Your task to perform on an android device: Open Google Maps Image 0: 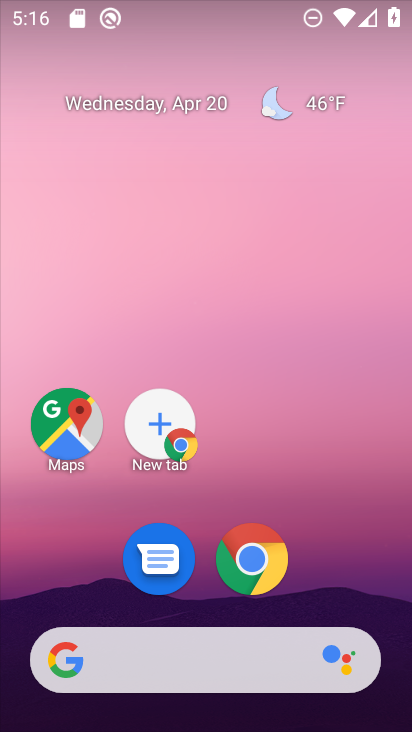
Step 0: click (76, 398)
Your task to perform on an android device: Open Google Maps Image 1: 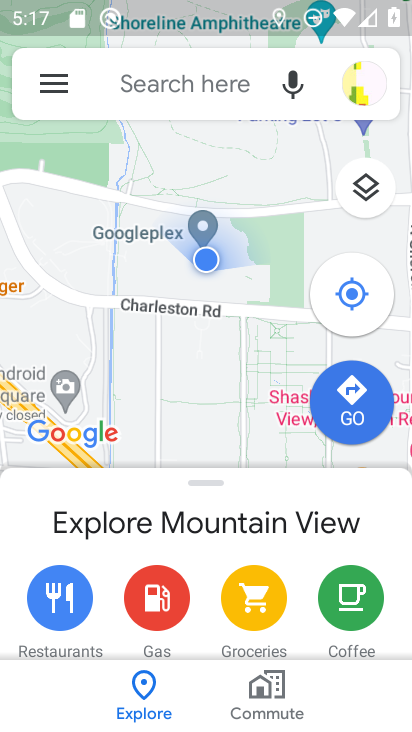
Step 1: task complete